Your task to perform on an android device: open app "Life360: Find Family & Friends" Image 0: 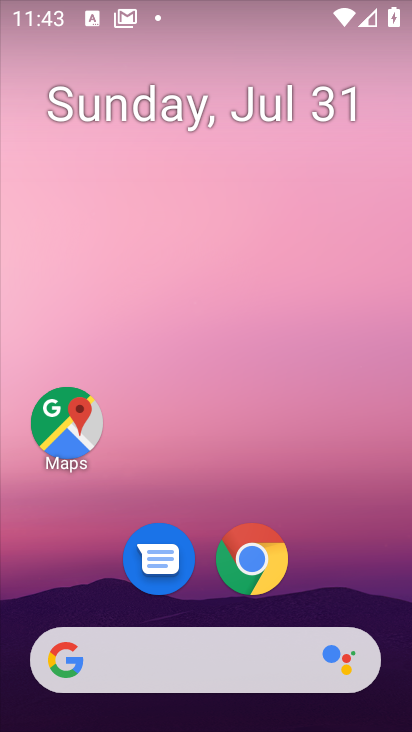
Step 0: drag from (113, 588) to (237, 7)
Your task to perform on an android device: open app "Life360: Find Family & Friends" Image 1: 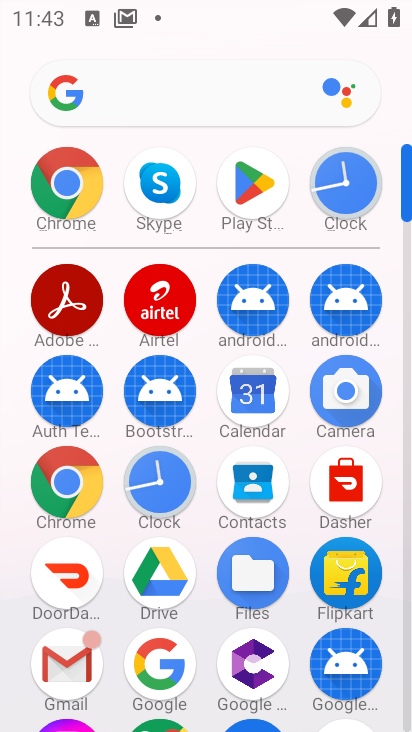
Step 1: click (240, 182)
Your task to perform on an android device: open app "Life360: Find Family & Friends" Image 2: 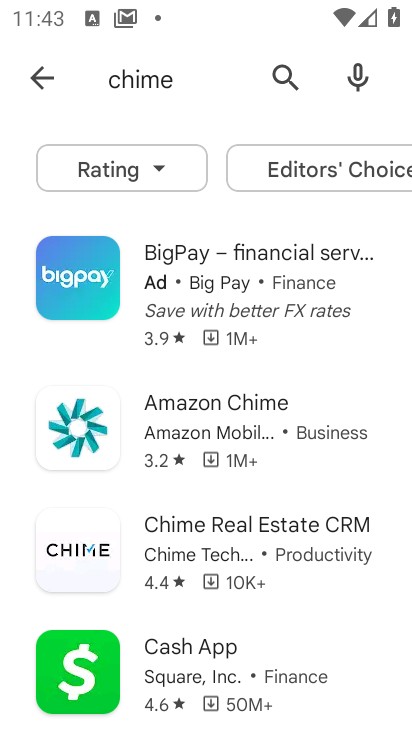
Step 2: click (276, 72)
Your task to perform on an android device: open app "Life360: Find Family & Friends" Image 3: 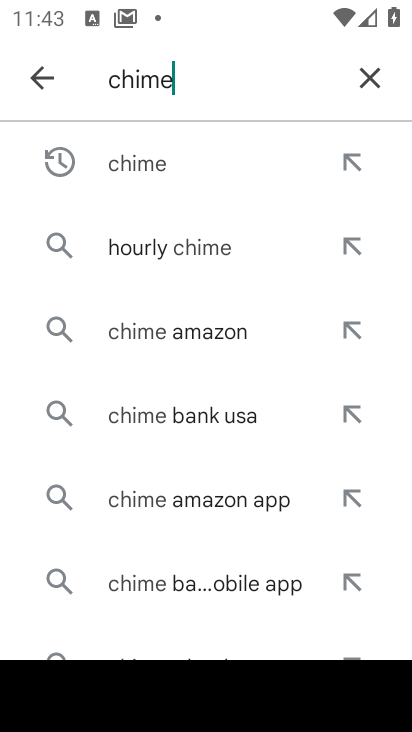
Step 3: click (362, 74)
Your task to perform on an android device: open app "Life360: Find Family & Friends" Image 4: 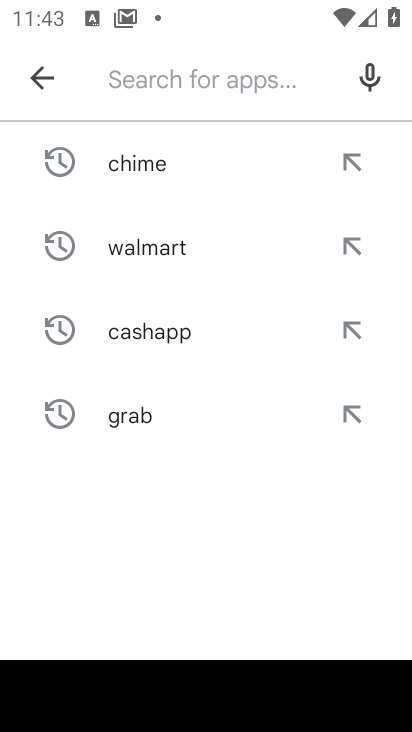
Step 4: click (174, 71)
Your task to perform on an android device: open app "Life360: Find Family & Friends" Image 5: 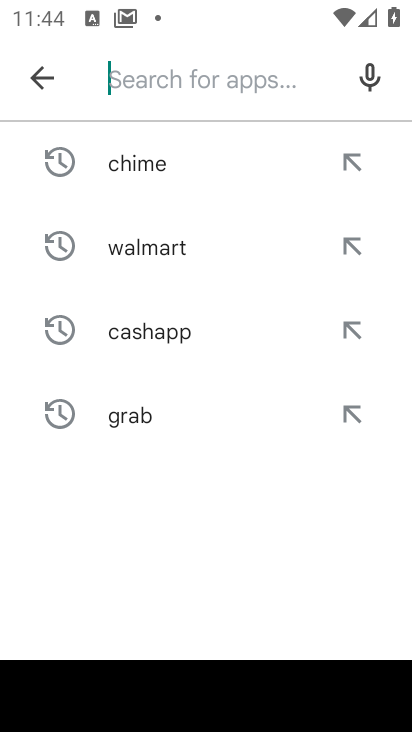
Step 5: type "life 360"
Your task to perform on an android device: open app "Life360: Find Family & Friends" Image 6: 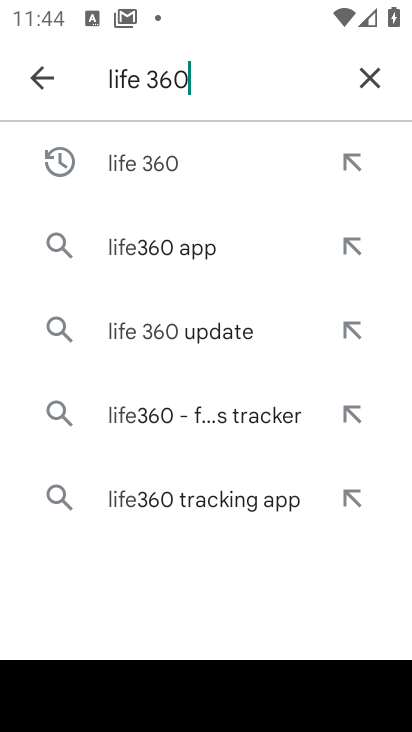
Step 6: click (173, 152)
Your task to perform on an android device: open app "Life360: Find Family & Friends" Image 7: 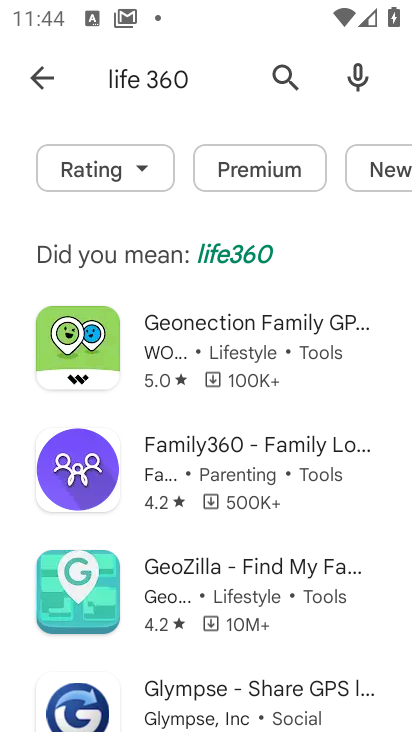
Step 7: task complete